Your task to perform on an android device: Clear all items from cart on newegg. Add "bose soundlink" to the cart on newegg Image 0: 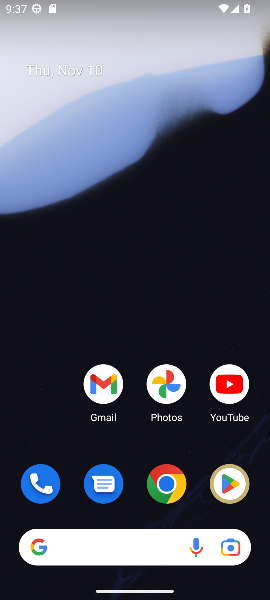
Step 0: click (170, 483)
Your task to perform on an android device: Clear all items from cart on newegg. Add "bose soundlink" to the cart on newegg Image 1: 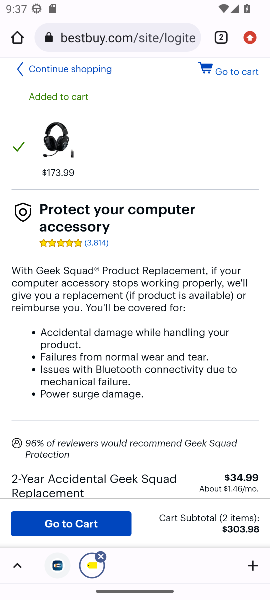
Step 1: click (98, 40)
Your task to perform on an android device: Clear all items from cart on newegg. Add "bose soundlink" to the cart on newegg Image 2: 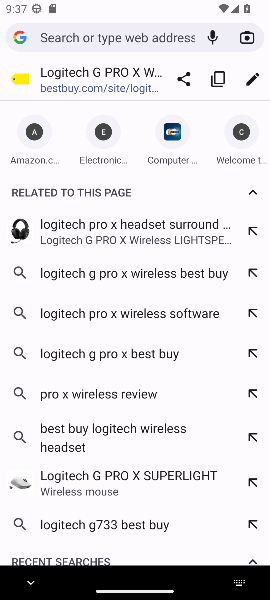
Step 2: type "newegg.com"
Your task to perform on an android device: Clear all items from cart on newegg. Add "bose soundlink" to the cart on newegg Image 3: 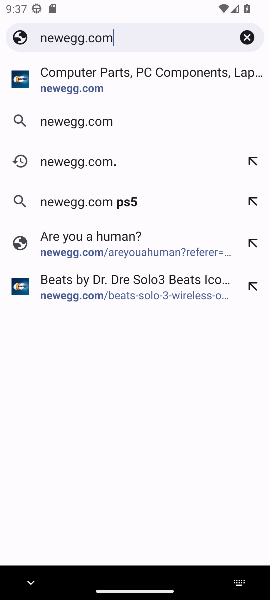
Step 3: click (59, 87)
Your task to perform on an android device: Clear all items from cart on newegg. Add "bose soundlink" to the cart on newegg Image 4: 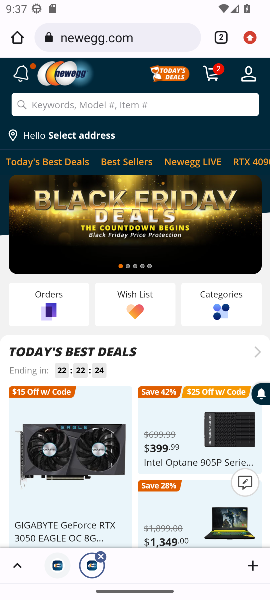
Step 4: click (212, 79)
Your task to perform on an android device: Clear all items from cart on newegg. Add "bose soundlink" to the cart on newegg Image 5: 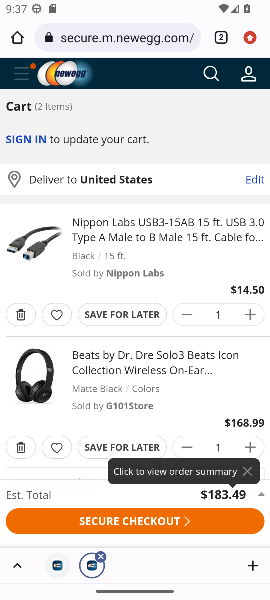
Step 5: click (18, 319)
Your task to perform on an android device: Clear all items from cart on newegg. Add "bose soundlink" to the cart on newegg Image 6: 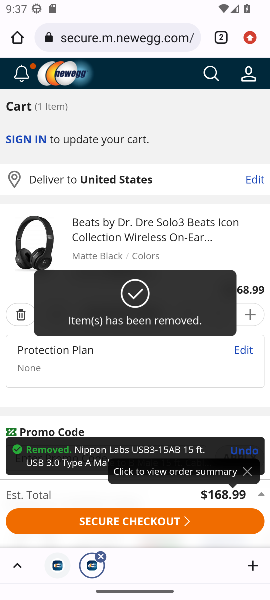
Step 6: click (18, 314)
Your task to perform on an android device: Clear all items from cart on newegg. Add "bose soundlink" to the cart on newegg Image 7: 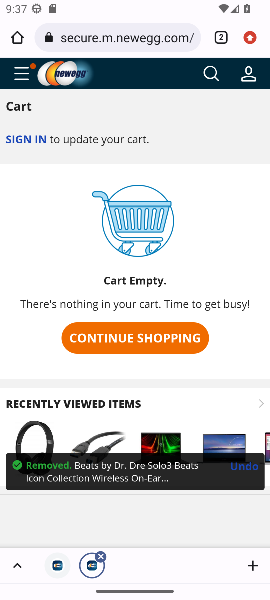
Step 7: click (133, 342)
Your task to perform on an android device: Clear all items from cart on newegg. Add "bose soundlink" to the cart on newegg Image 8: 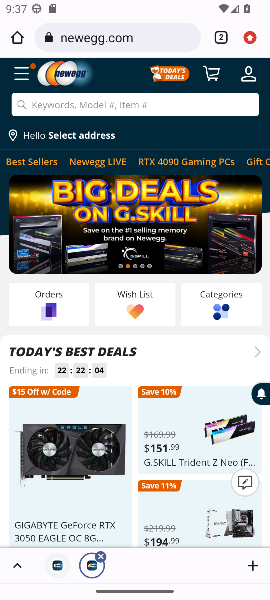
Step 8: click (148, 108)
Your task to perform on an android device: Clear all items from cart on newegg. Add "bose soundlink" to the cart on newegg Image 9: 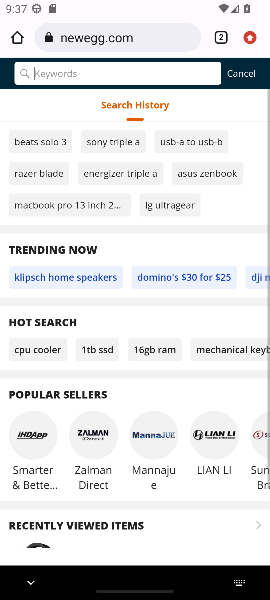
Step 9: type "bose soundlink"
Your task to perform on an android device: Clear all items from cart on newegg. Add "bose soundlink" to the cart on newegg Image 10: 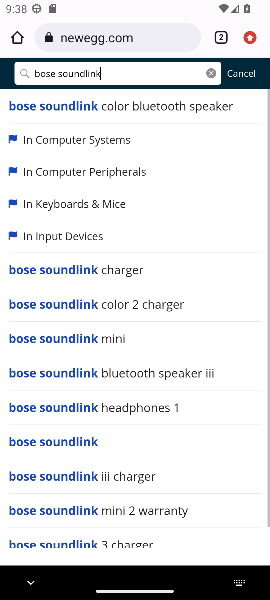
Step 10: click (52, 440)
Your task to perform on an android device: Clear all items from cart on newegg. Add "bose soundlink" to the cart on newegg Image 11: 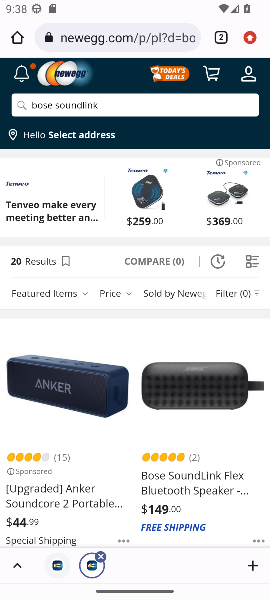
Step 11: drag from (102, 473) to (91, 372)
Your task to perform on an android device: Clear all items from cart on newegg. Add "bose soundlink" to the cart on newegg Image 12: 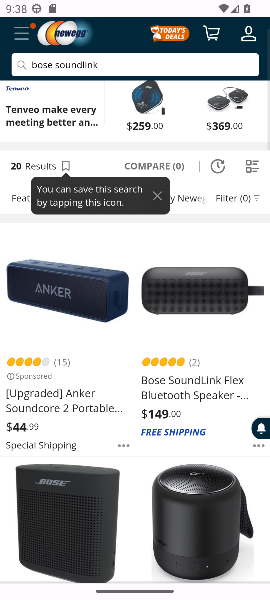
Step 12: click (184, 368)
Your task to perform on an android device: Clear all items from cart on newegg. Add "bose soundlink" to the cart on newegg Image 13: 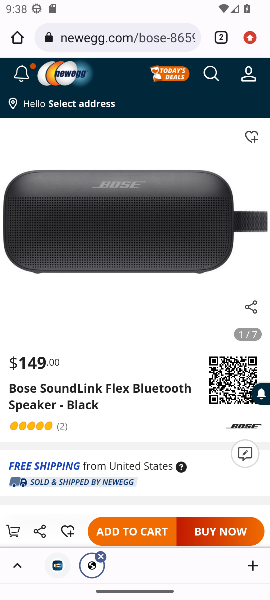
Step 13: click (112, 534)
Your task to perform on an android device: Clear all items from cart on newegg. Add "bose soundlink" to the cart on newegg Image 14: 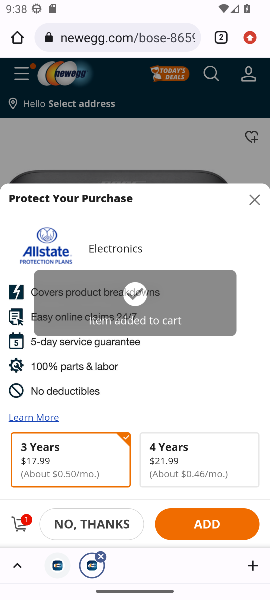
Step 14: task complete